Your task to perform on an android device: change the clock display to digital Image 0: 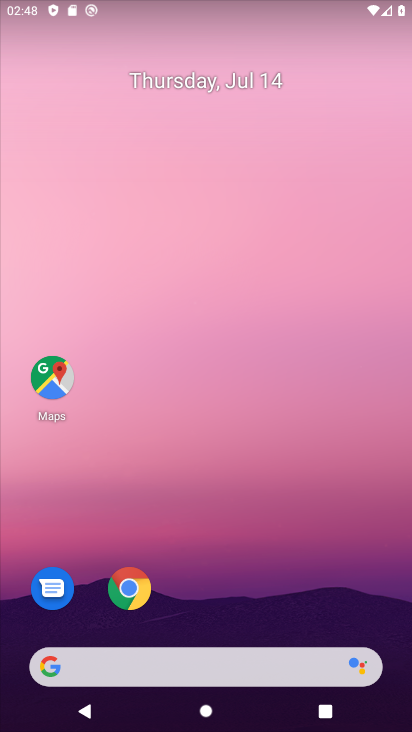
Step 0: drag from (232, 621) to (192, 200)
Your task to perform on an android device: change the clock display to digital Image 1: 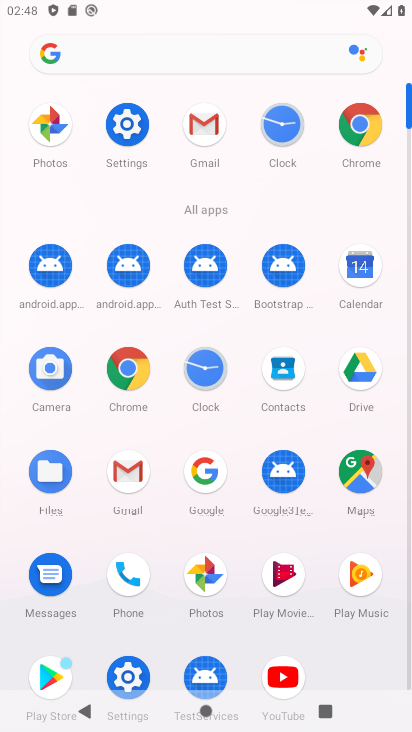
Step 1: click (289, 115)
Your task to perform on an android device: change the clock display to digital Image 2: 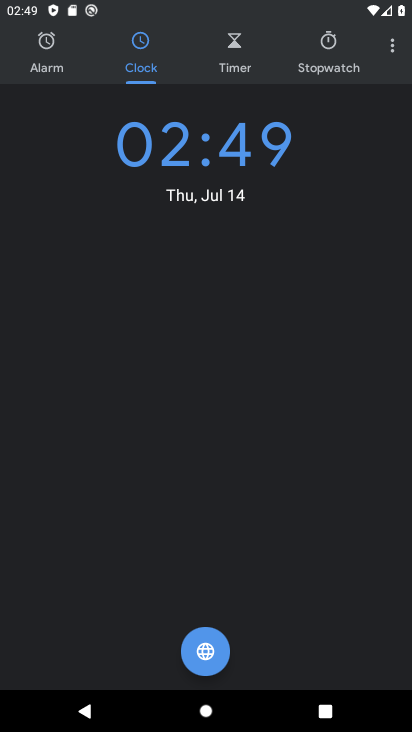
Step 2: click (387, 43)
Your task to perform on an android device: change the clock display to digital Image 3: 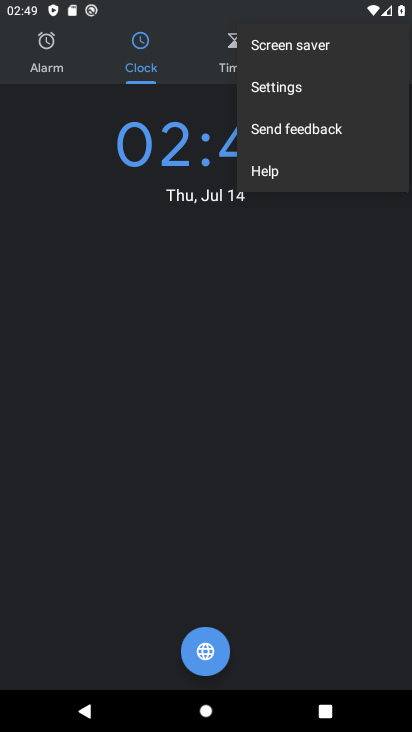
Step 3: click (315, 80)
Your task to perform on an android device: change the clock display to digital Image 4: 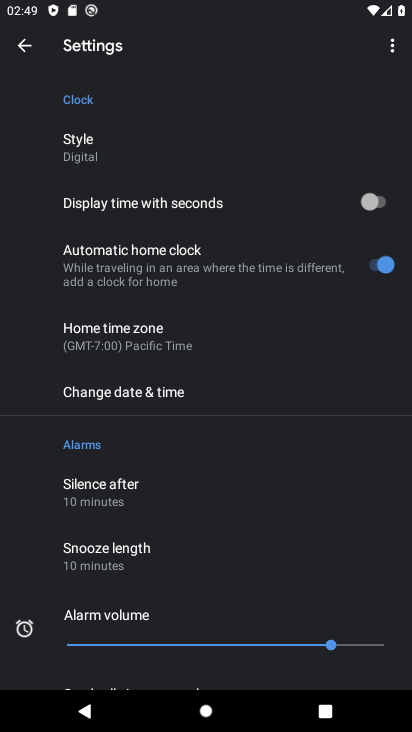
Step 4: task complete